Your task to perform on an android device: make emails show in primary in the gmail app Image 0: 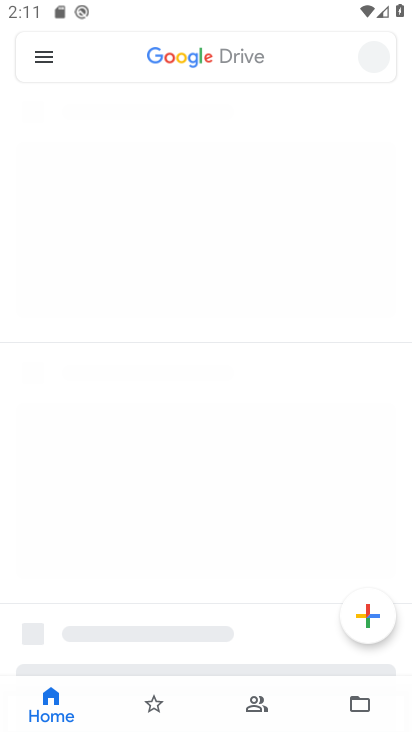
Step 0: click (123, 604)
Your task to perform on an android device: make emails show in primary in the gmail app Image 1: 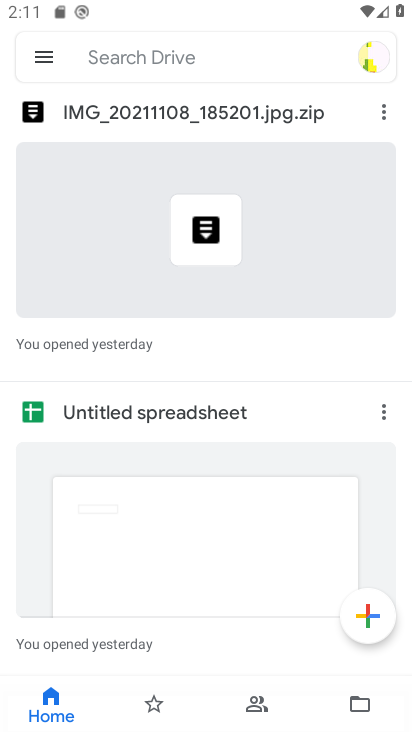
Step 1: press home button
Your task to perform on an android device: make emails show in primary in the gmail app Image 2: 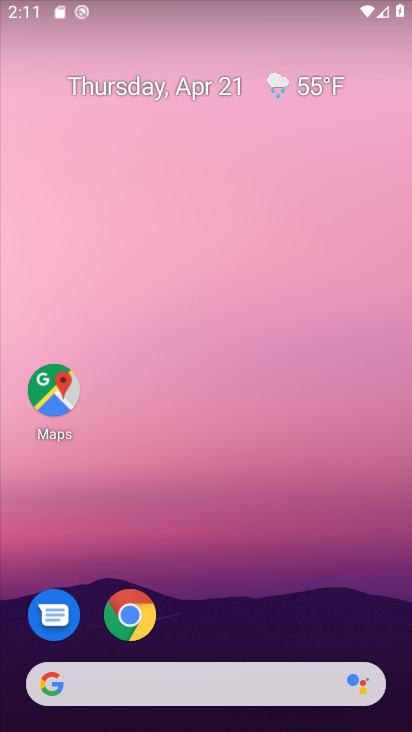
Step 2: drag from (171, 583) to (259, 153)
Your task to perform on an android device: make emails show in primary in the gmail app Image 3: 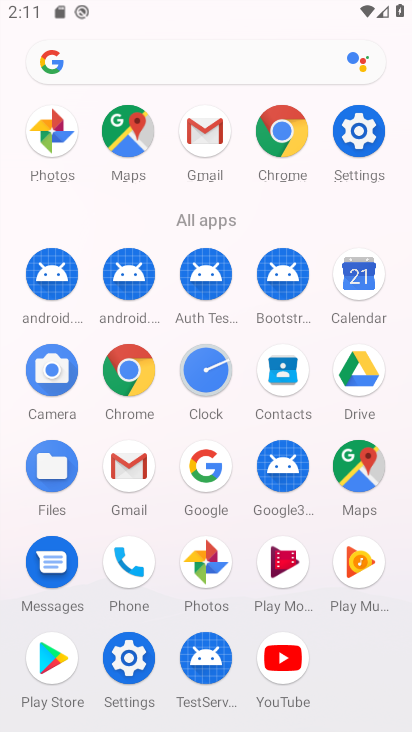
Step 3: click (117, 466)
Your task to perform on an android device: make emails show in primary in the gmail app Image 4: 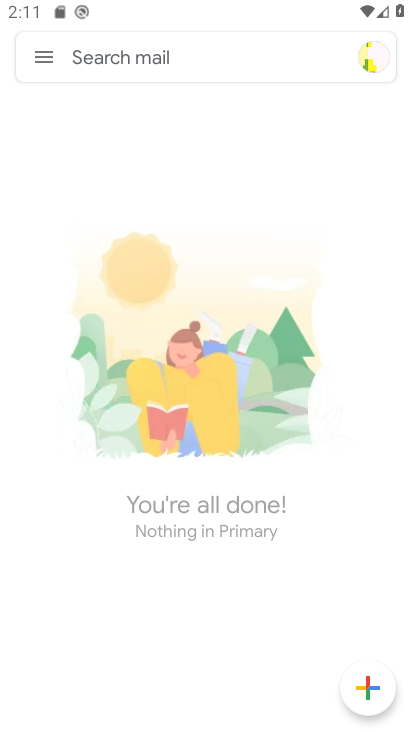
Step 4: click (39, 55)
Your task to perform on an android device: make emails show in primary in the gmail app Image 5: 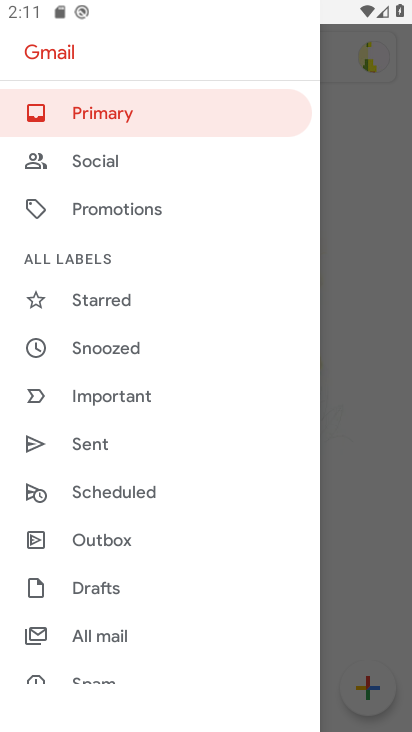
Step 5: drag from (111, 547) to (160, 188)
Your task to perform on an android device: make emails show in primary in the gmail app Image 6: 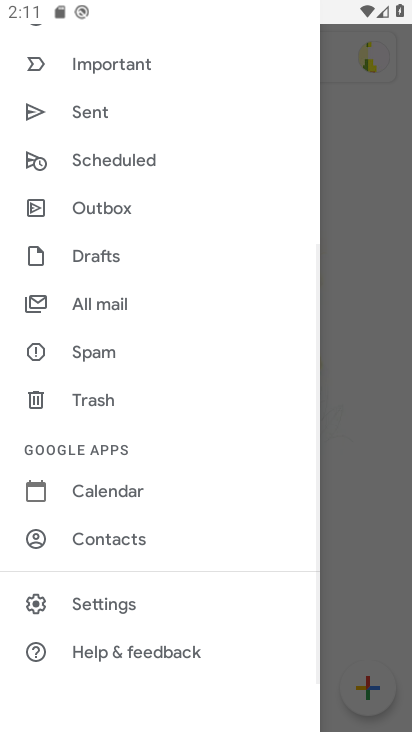
Step 6: click (95, 612)
Your task to perform on an android device: make emails show in primary in the gmail app Image 7: 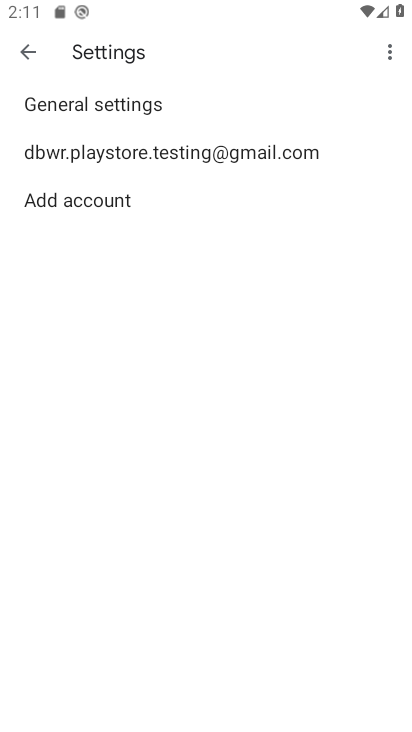
Step 7: click (144, 150)
Your task to perform on an android device: make emails show in primary in the gmail app Image 8: 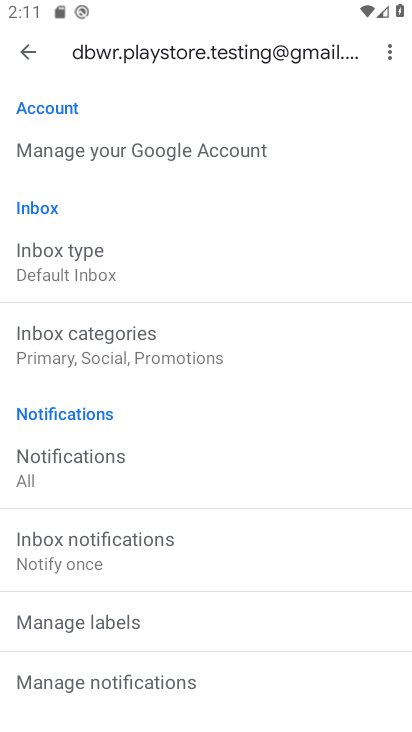
Step 8: click (60, 375)
Your task to perform on an android device: make emails show in primary in the gmail app Image 9: 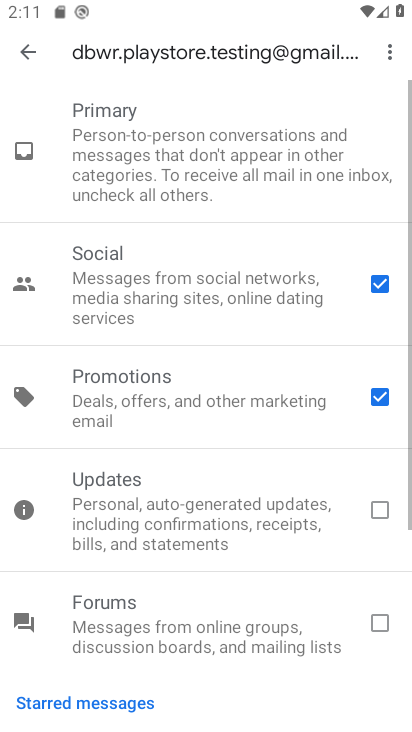
Step 9: click (374, 389)
Your task to perform on an android device: make emails show in primary in the gmail app Image 10: 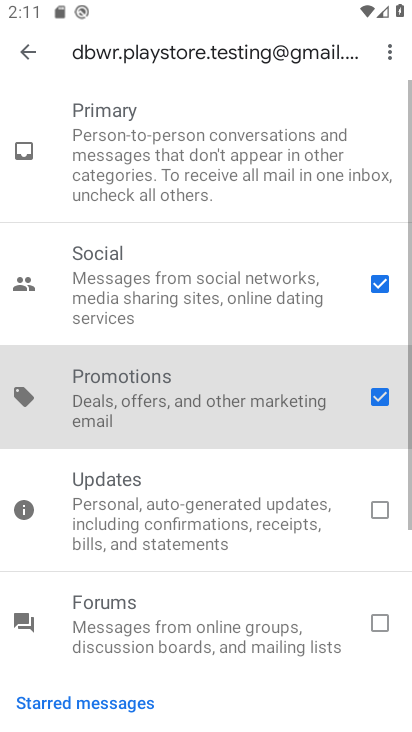
Step 10: click (352, 288)
Your task to perform on an android device: make emails show in primary in the gmail app Image 11: 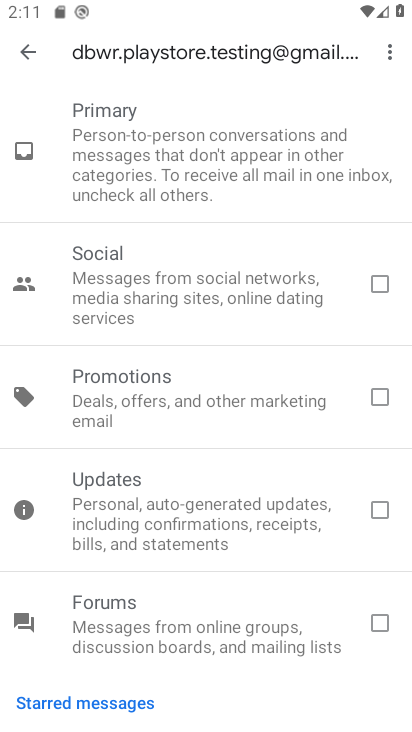
Step 11: task complete